Your task to perform on an android device: open device folders in google photos Image 0: 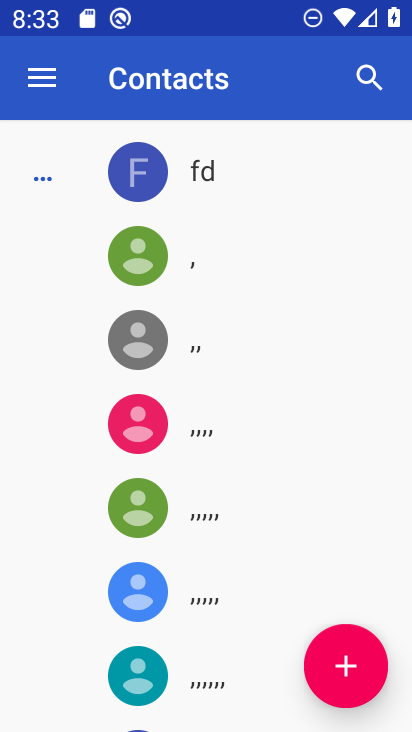
Step 0: press home button
Your task to perform on an android device: open device folders in google photos Image 1: 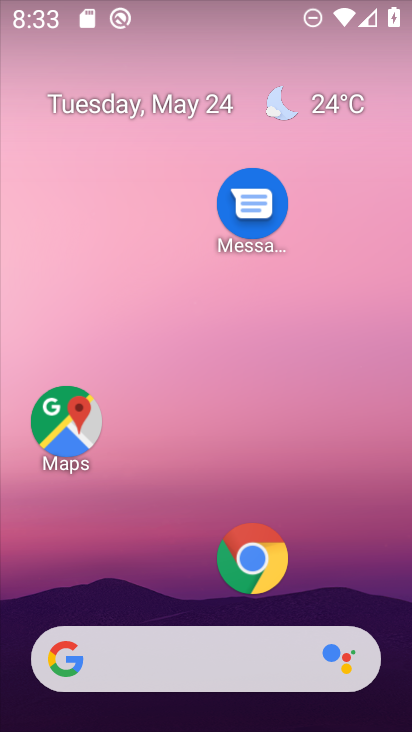
Step 1: drag from (190, 609) to (189, 175)
Your task to perform on an android device: open device folders in google photos Image 2: 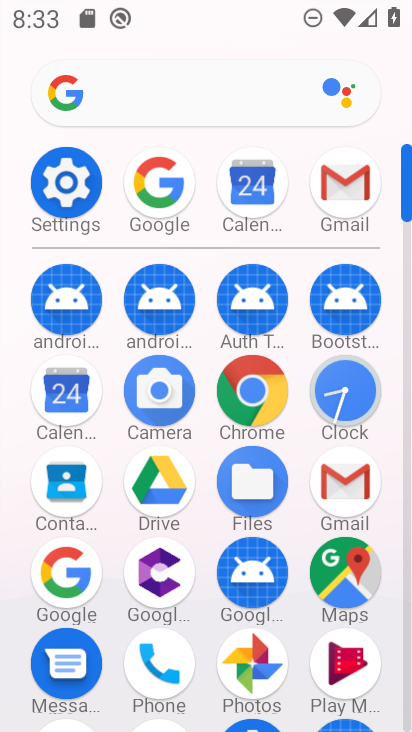
Step 2: click (239, 647)
Your task to perform on an android device: open device folders in google photos Image 3: 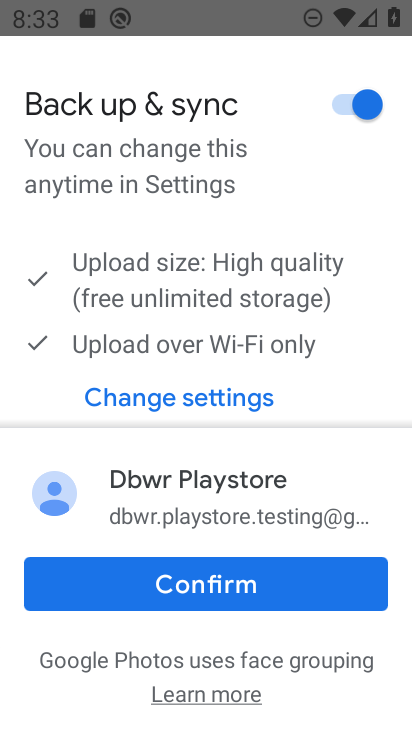
Step 3: click (228, 578)
Your task to perform on an android device: open device folders in google photos Image 4: 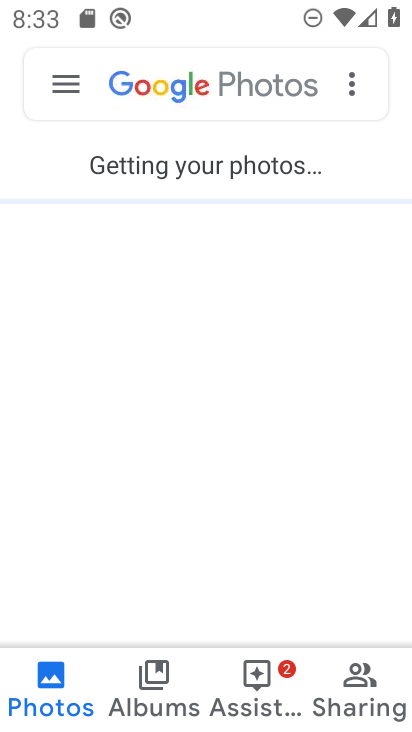
Step 4: click (60, 94)
Your task to perform on an android device: open device folders in google photos Image 5: 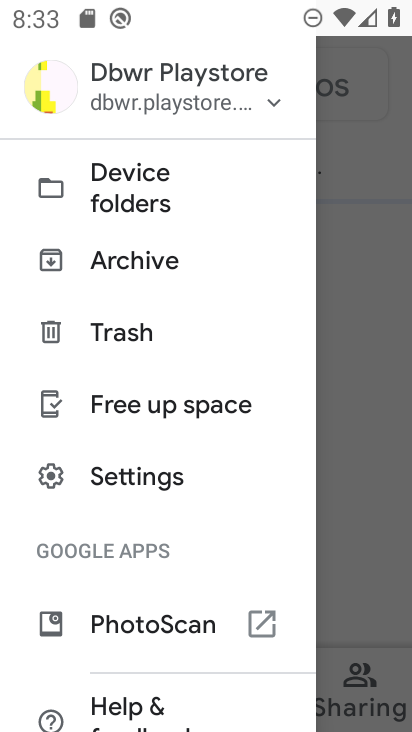
Step 5: click (110, 184)
Your task to perform on an android device: open device folders in google photos Image 6: 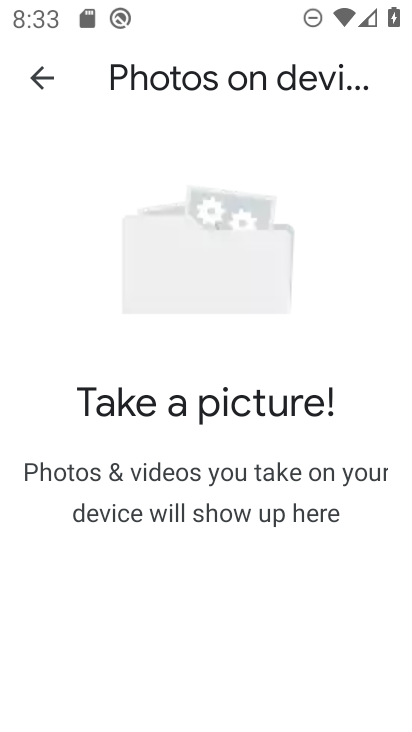
Step 6: task complete